Your task to perform on an android device: Go to notification settings Image 0: 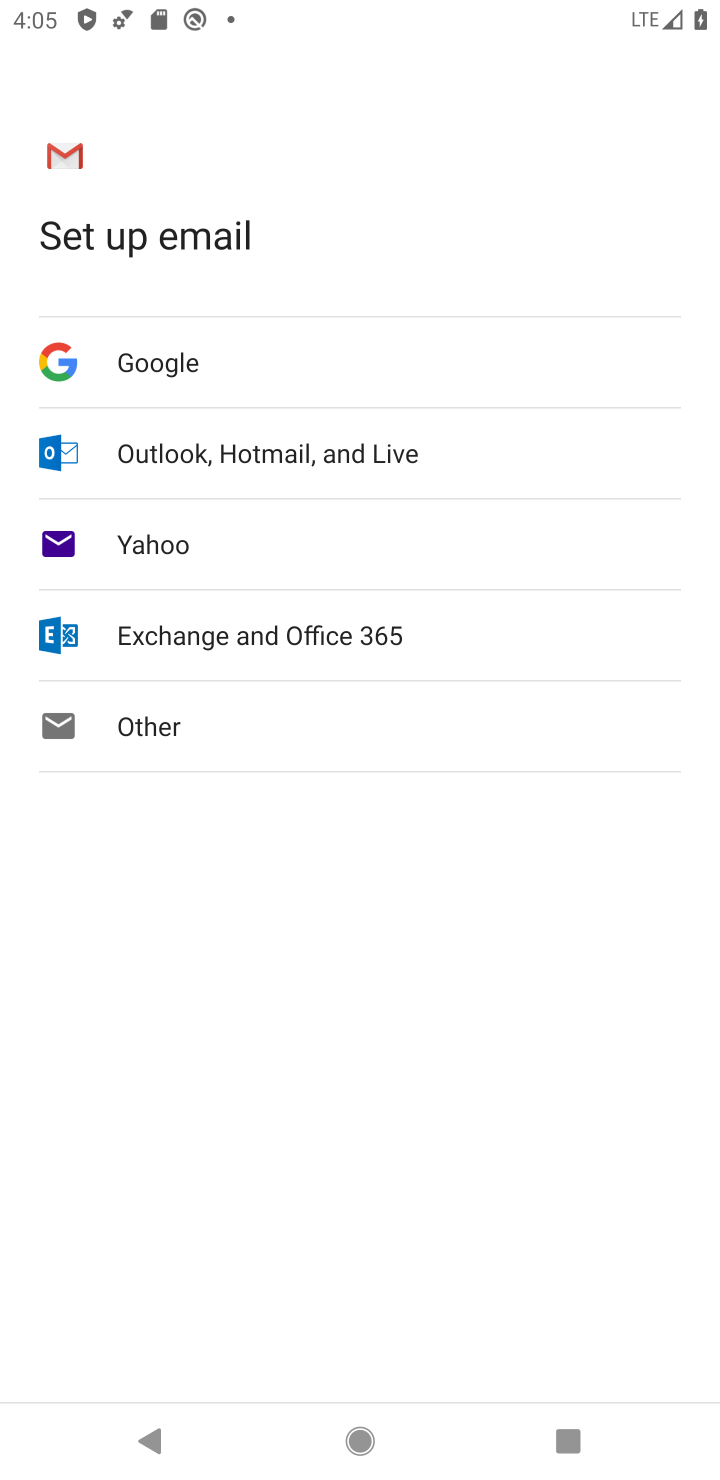
Step 0: press back button
Your task to perform on an android device: Go to notification settings Image 1: 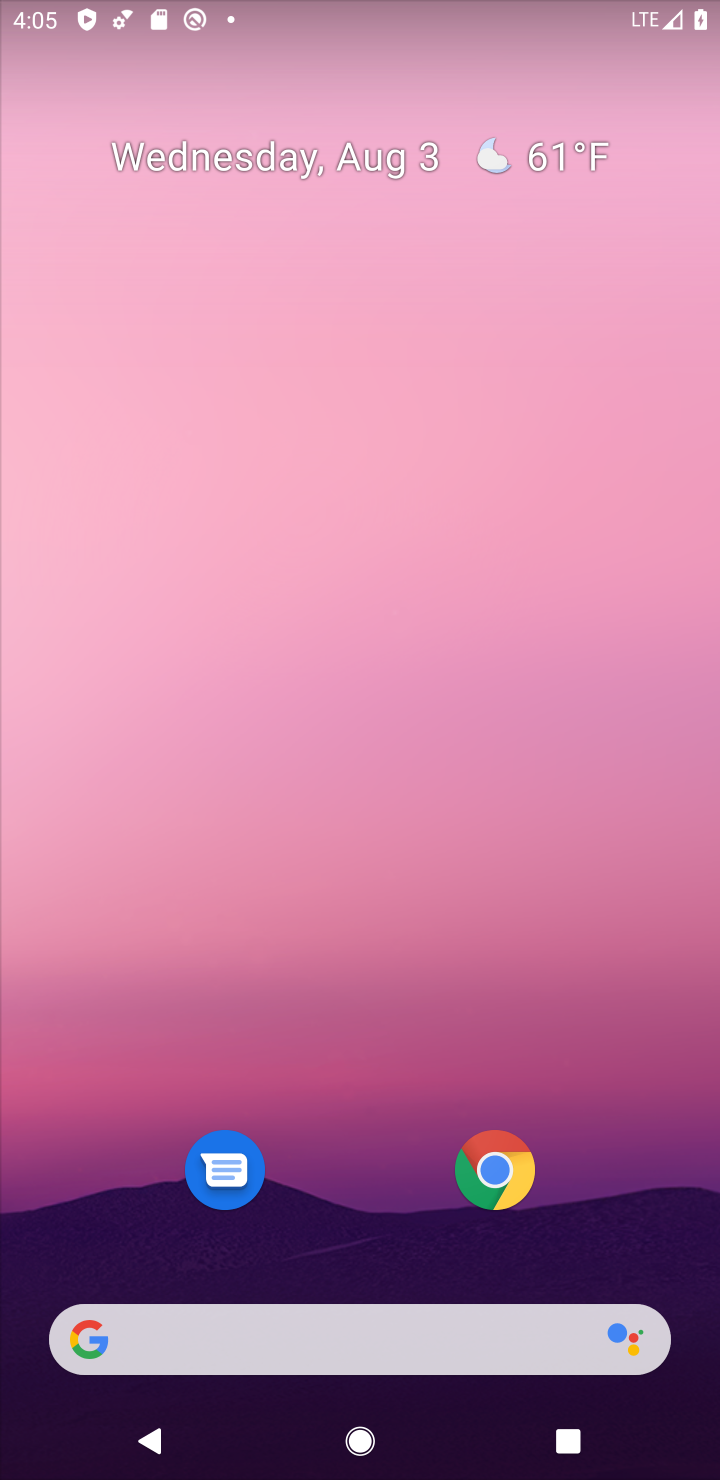
Step 1: click (396, 154)
Your task to perform on an android device: Go to notification settings Image 2: 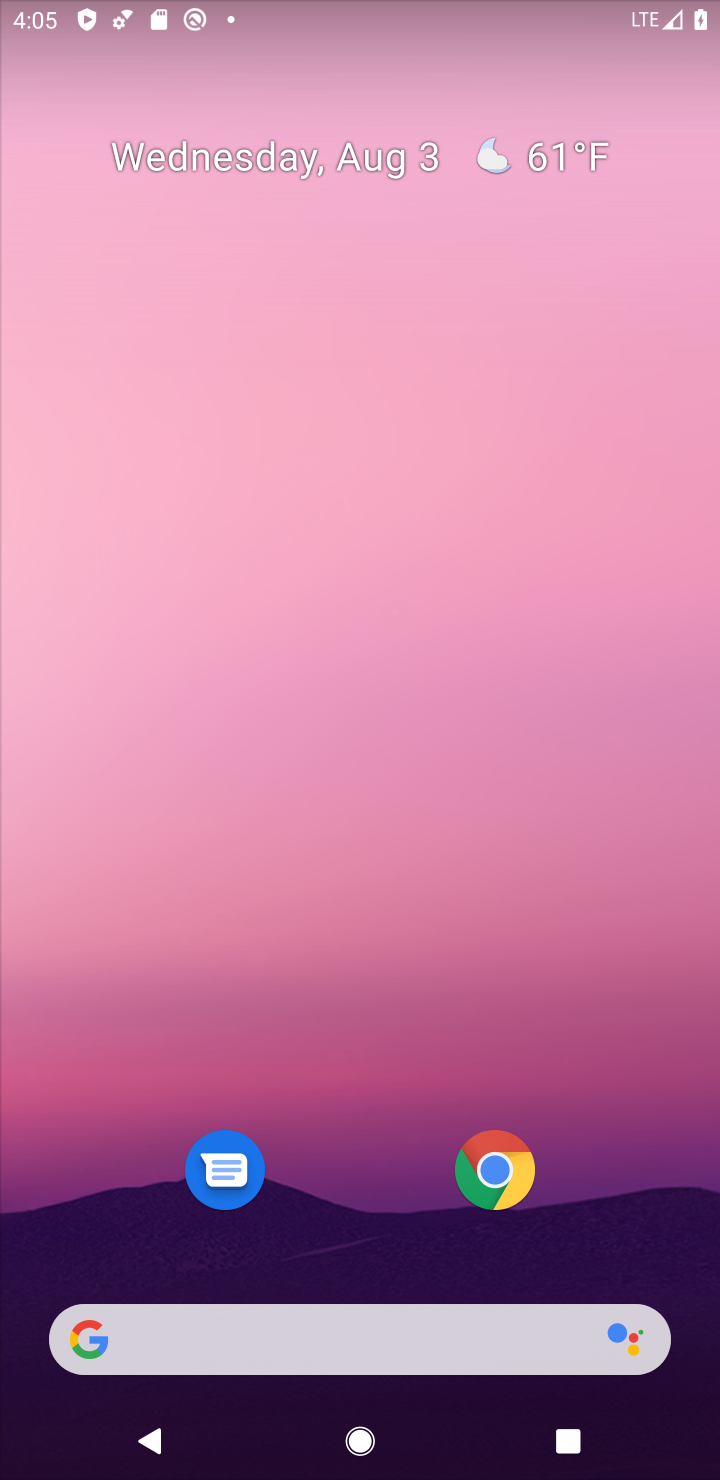
Step 2: click (429, 286)
Your task to perform on an android device: Go to notification settings Image 3: 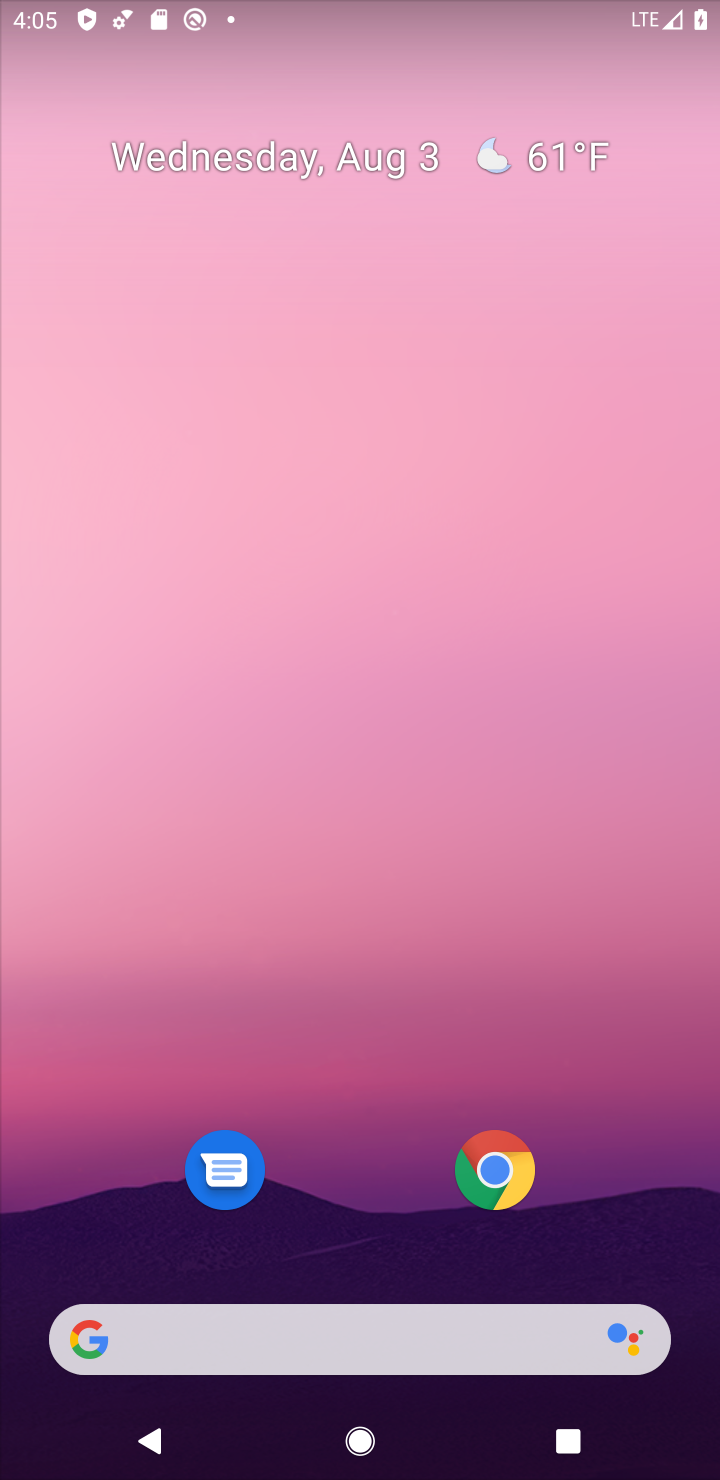
Step 3: drag from (313, 1224) to (286, 216)
Your task to perform on an android device: Go to notification settings Image 4: 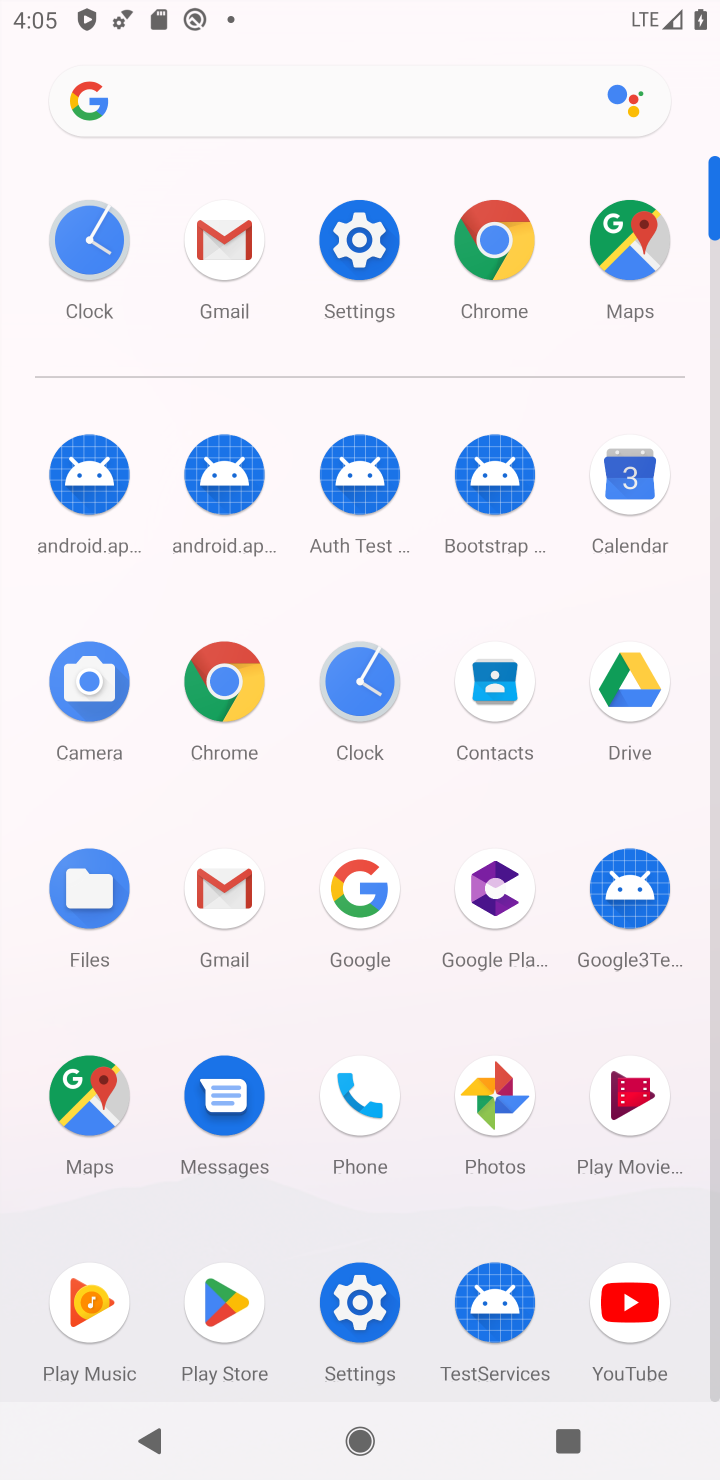
Step 4: click (353, 260)
Your task to perform on an android device: Go to notification settings Image 5: 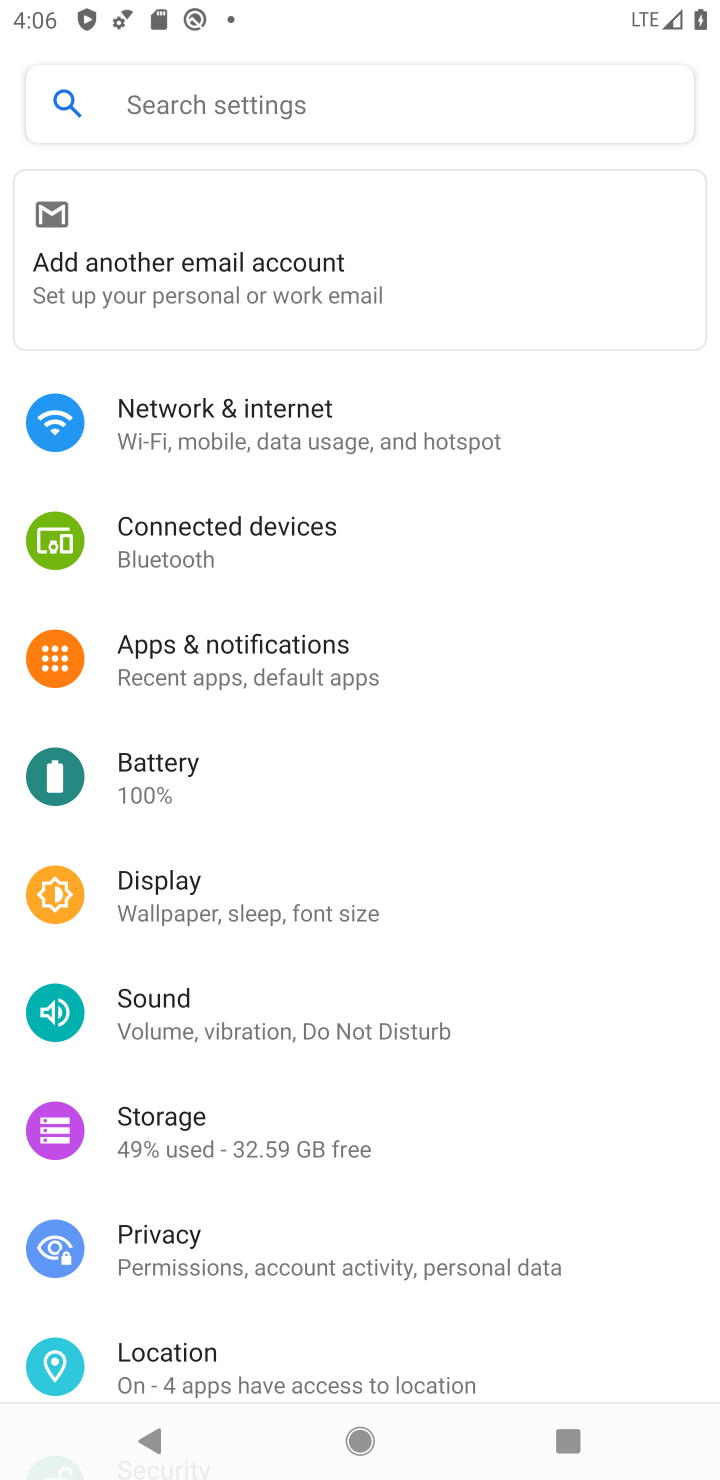
Step 5: click (163, 660)
Your task to perform on an android device: Go to notification settings Image 6: 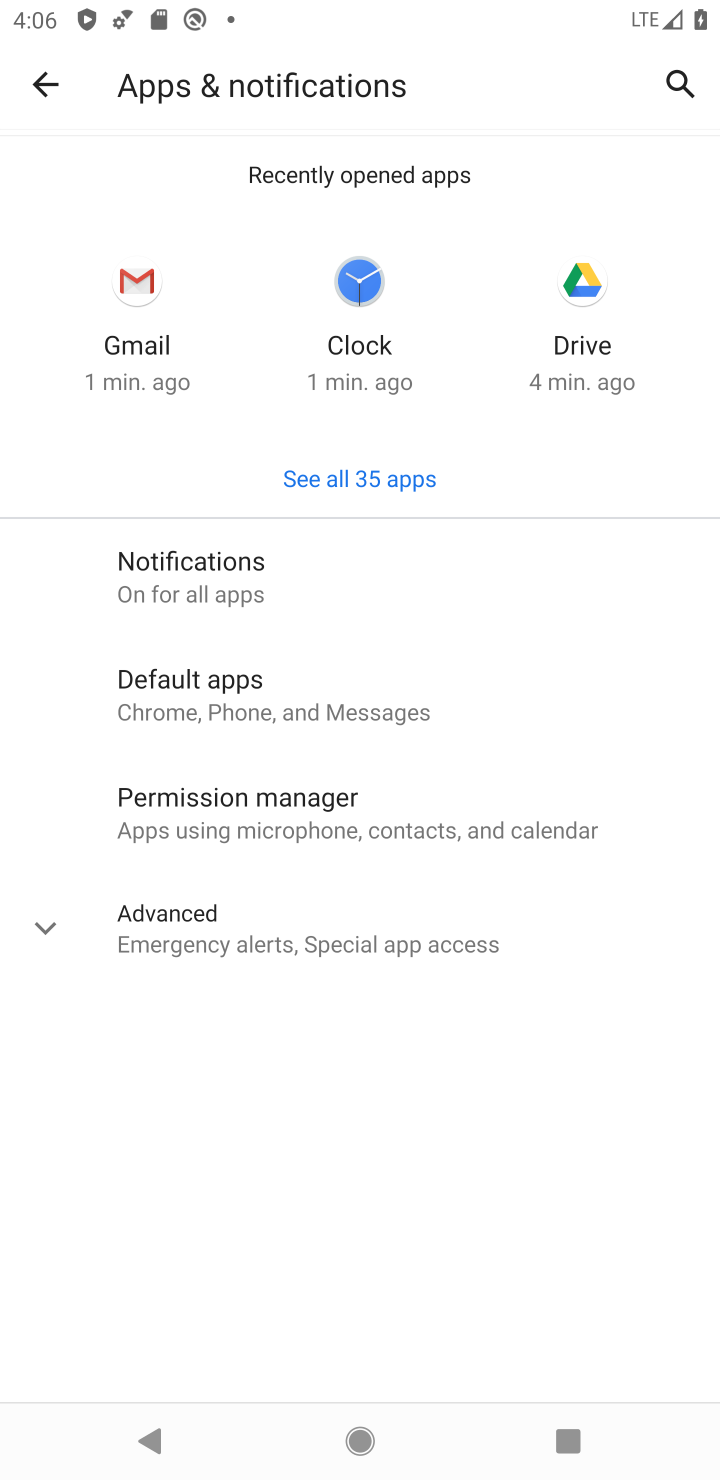
Step 6: click (206, 611)
Your task to perform on an android device: Go to notification settings Image 7: 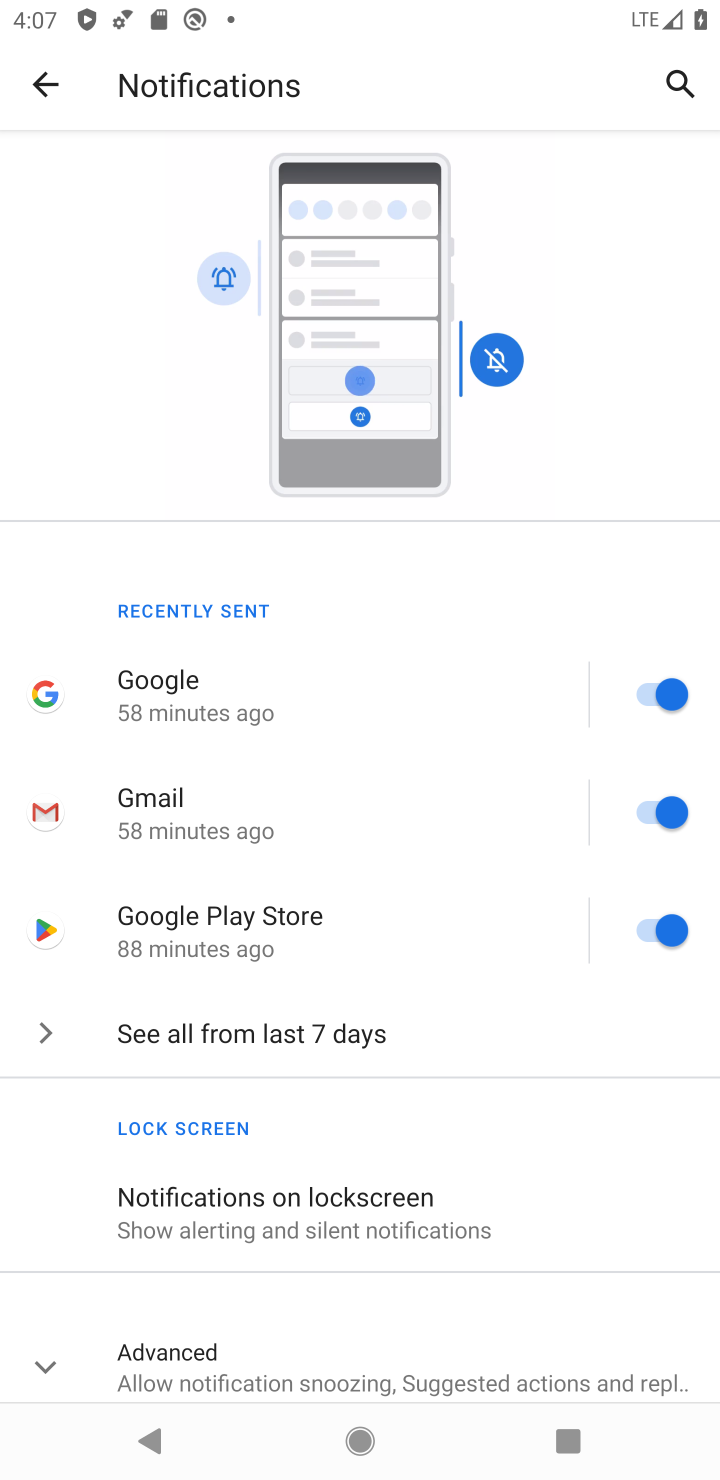
Step 7: task complete